Your task to perform on an android device: turn off location Image 0: 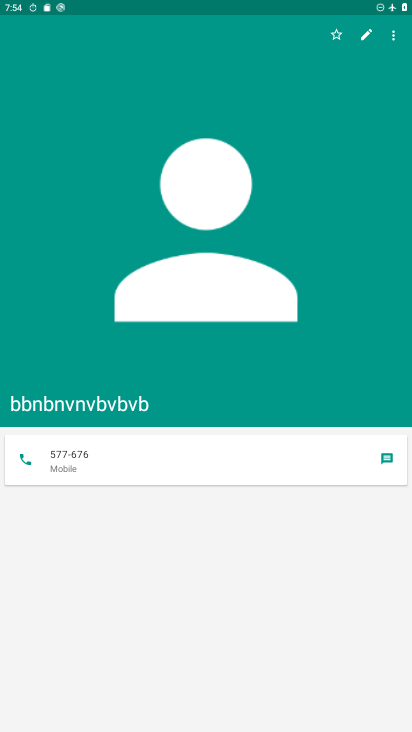
Step 0: press home button
Your task to perform on an android device: turn off location Image 1: 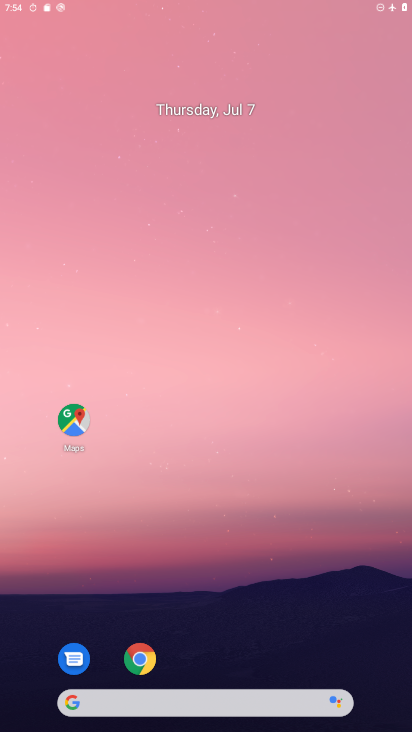
Step 1: drag from (375, 682) to (294, 42)
Your task to perform on an android device: turn off location Image 2: 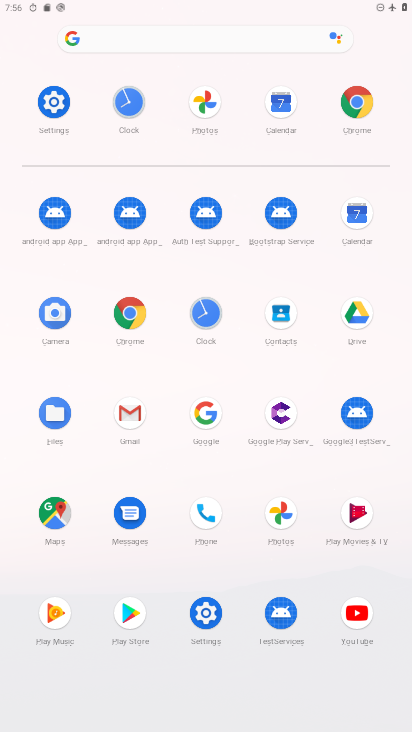
Step 2: click (211, 615)
Your task to perform on an android device: turn off location Image 3: 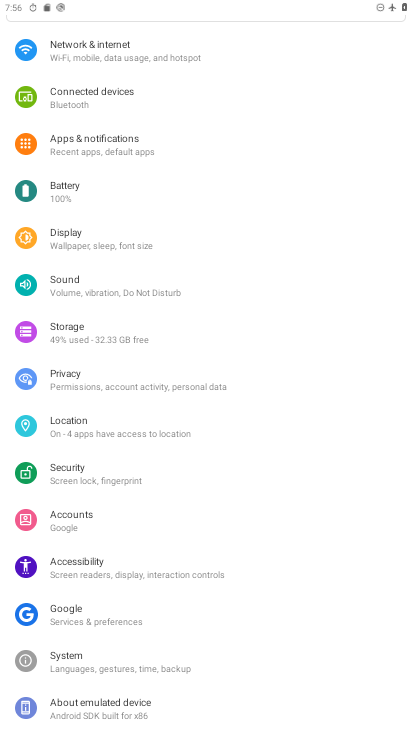
Step 3: click (105, 421)
Your task to perform on an android device: turn off location Image 4: 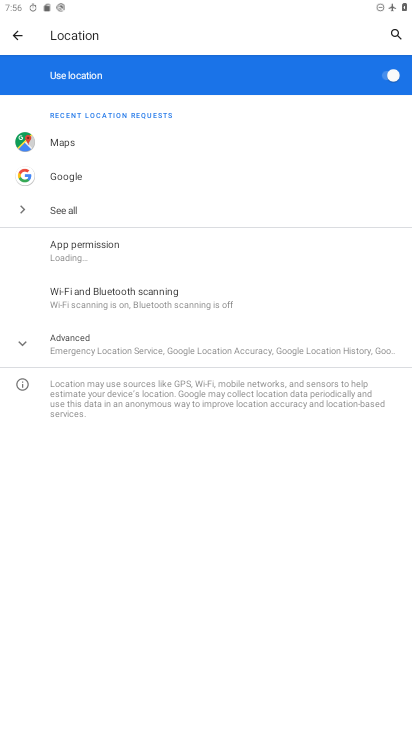
Step 4: click (366, 69)
Your task to perform on an android device: turn off location Image 5: 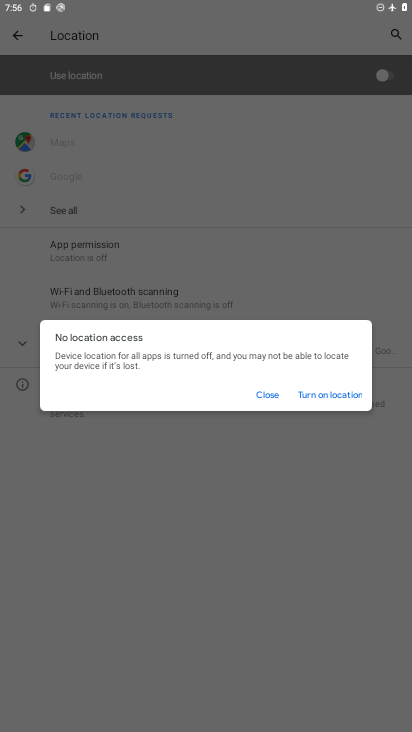
Step 5: task complete